Your task to perform on an android device: Set the phone to "Do not disturb". Image 0: 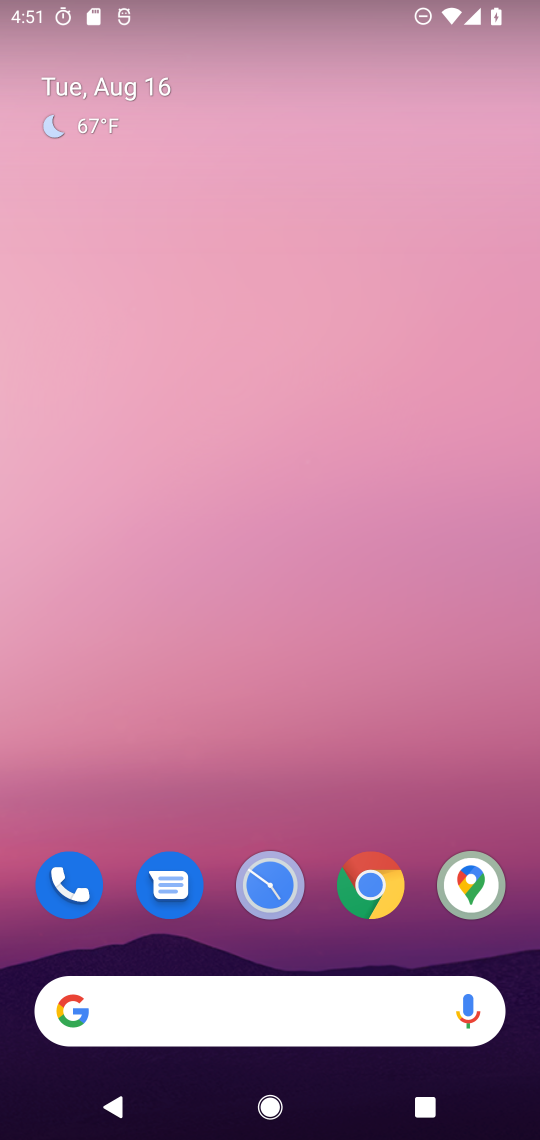
Step 0: drag from (239, 1) to (165, 789)
Your task to perform on an android device: Set the phone to "Do not disturb". Image 1: 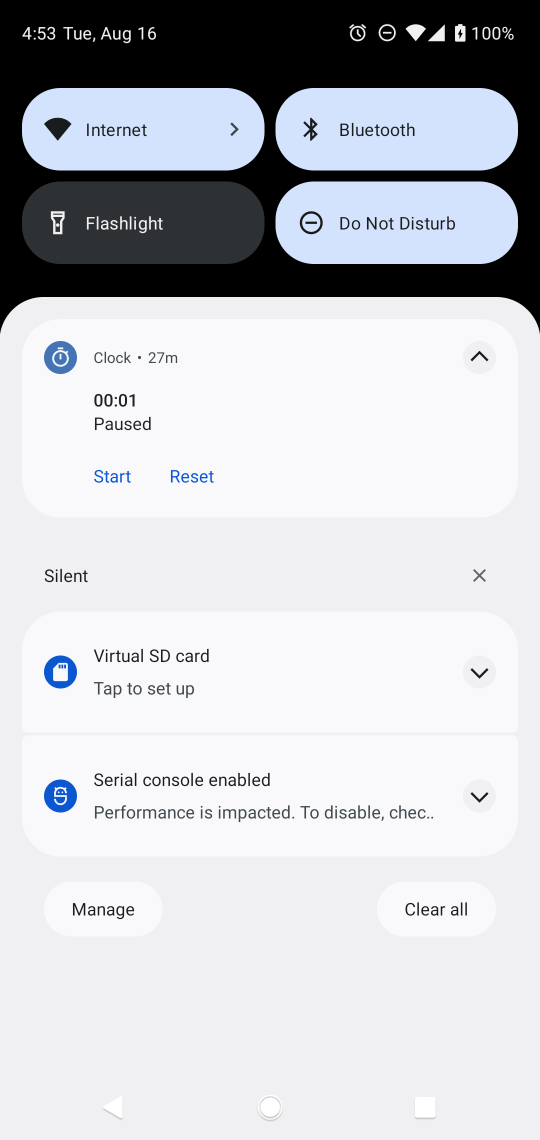
Step 1: task complete